Your task to perform on an android device: Go to display settings Image 0: 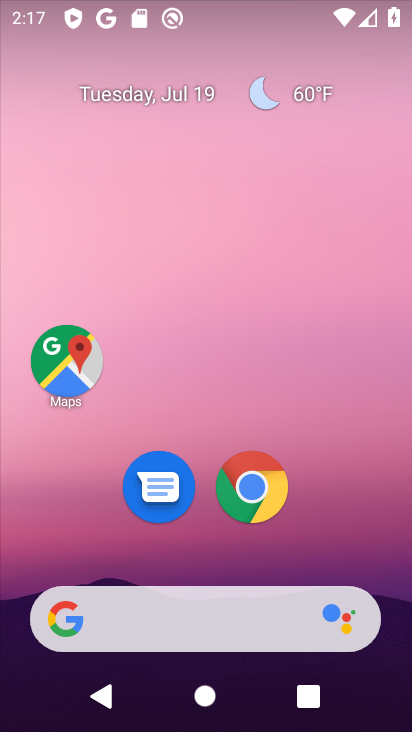
Step 0: drag from (195, 550) to (257, 43)
Your task to perform on an android device: Go to display settings Image 1: 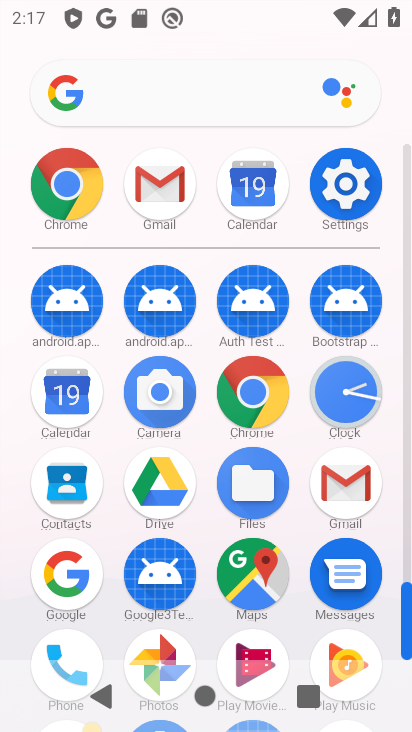
Step 1: click (353, 189)
Your task to perform on an android device: Go to display settings Image 2: 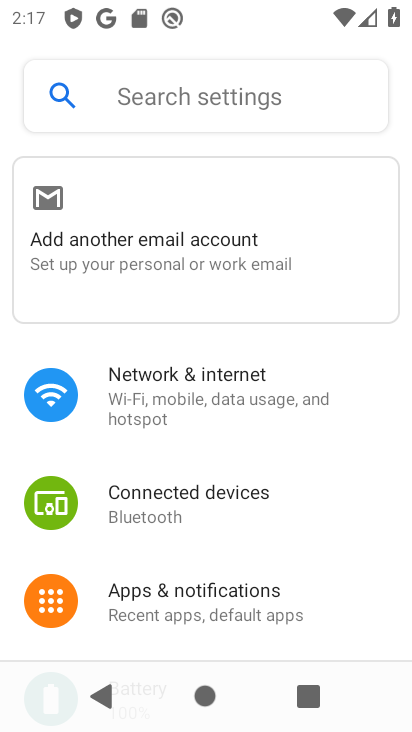
Step 2: drag from (165, 602) to (297, 43)
Your task to perform on an android device: Go to display settings Image 3: 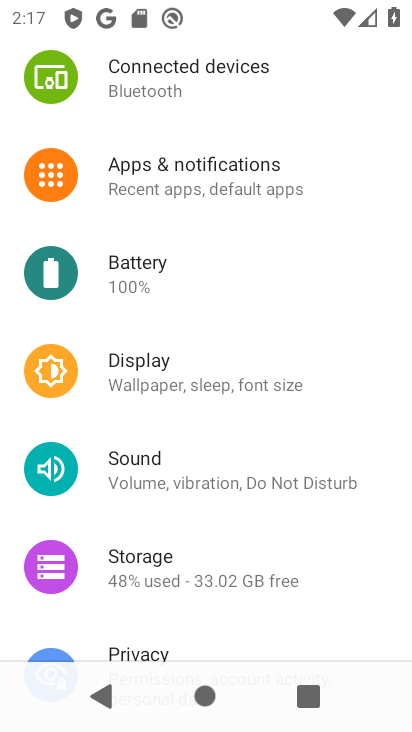
Step 3: click (157, 343)
Your task to perform on an android device: Go to display settings Image 4: 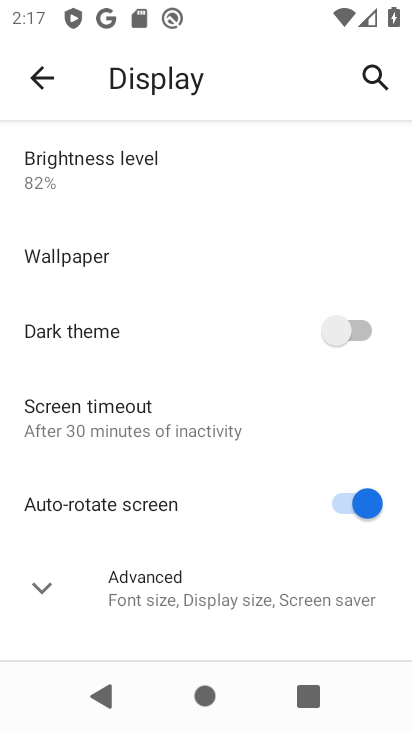
Step 4: task complete